Your task to perform on an android device: Toggle the flashlight Image 0: 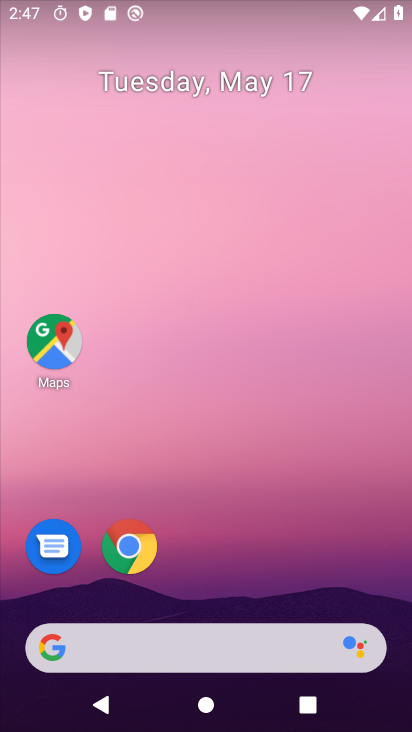
Step 0: drag from (198, 640) to (208, 229)
Your task to perform on an android device: Toggle the flashlight Image 1: 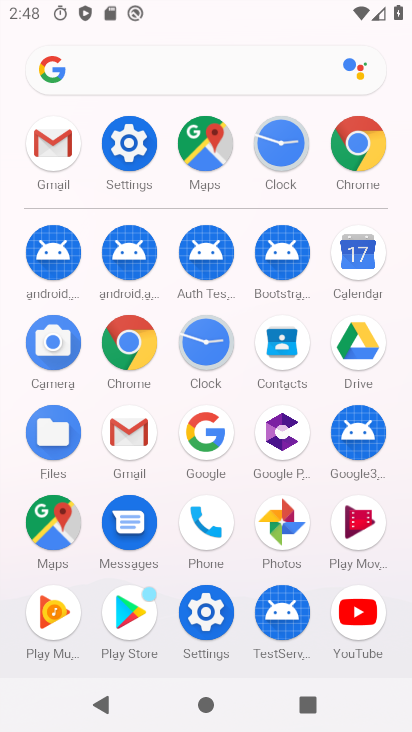
Step 1: task complete